Your task to perform on an android device: turn off location Image 0: 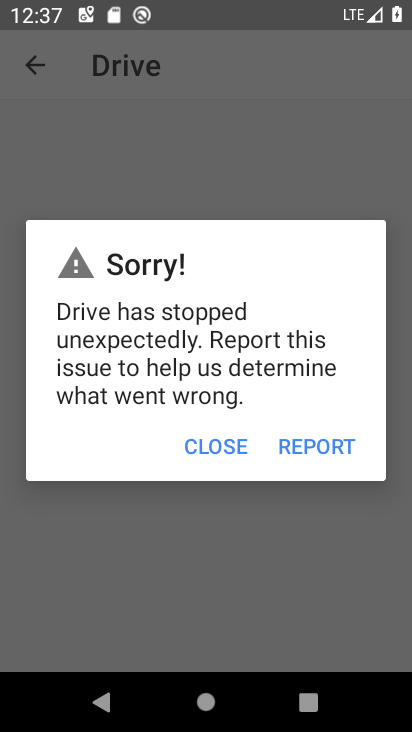
Step 0: press home button
Your task to perform on an android device: turn off location Image 1: 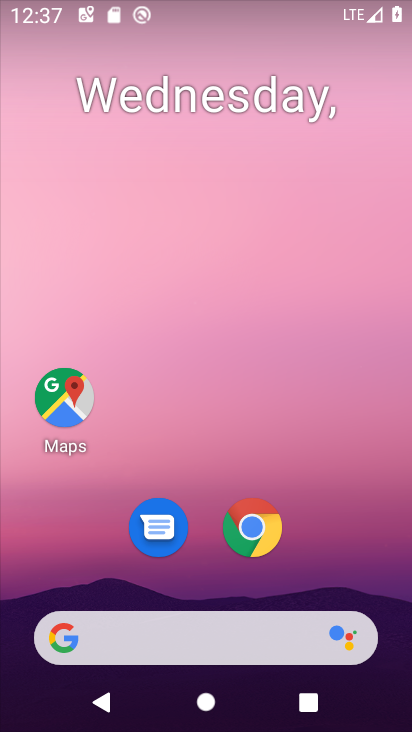
Step 1: drag from (342, 614) to (353, 42)
Your task to perform on an android device: turn off location Image 2: 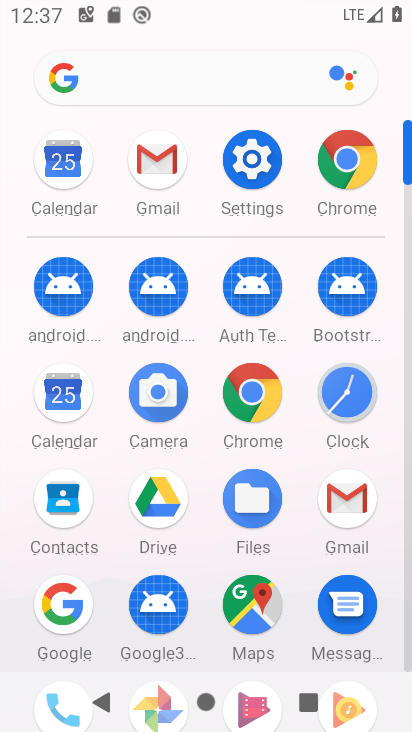
Step 2: click (258, 167)
Your task to perform on an android device: turn off location Image 3: 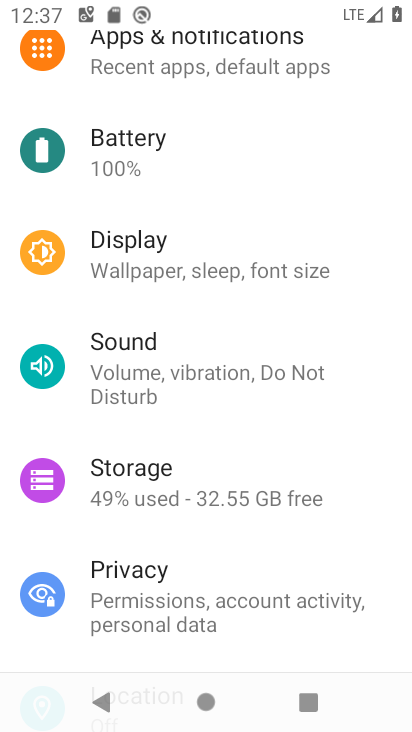
Step 3: drag from (265, 572) to (332, 151)
Your task to perform on an android device: turn off location Image 4: 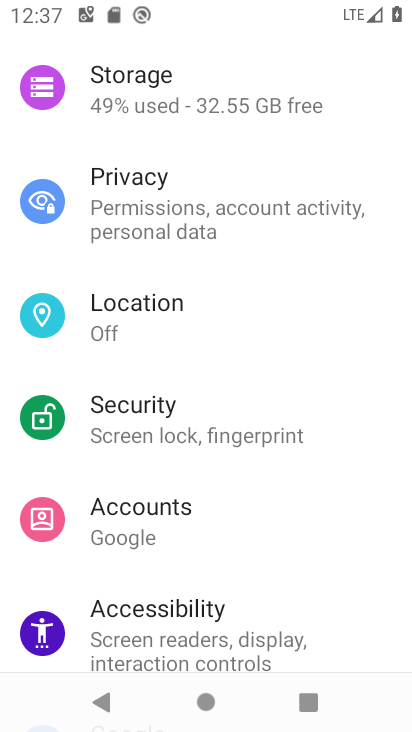
Step 4: click (191, 314)
Your task to perform on an android device: turn off location Image 5: 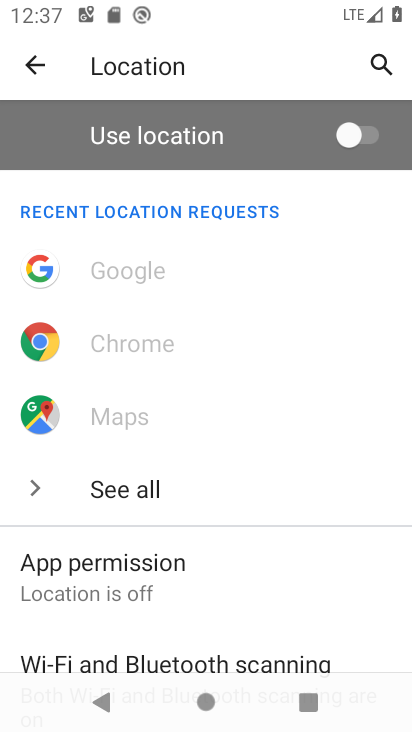
Step 5: task complete